Your task to perform on an android device: uninstall "Fetch Rewards" Image 0: 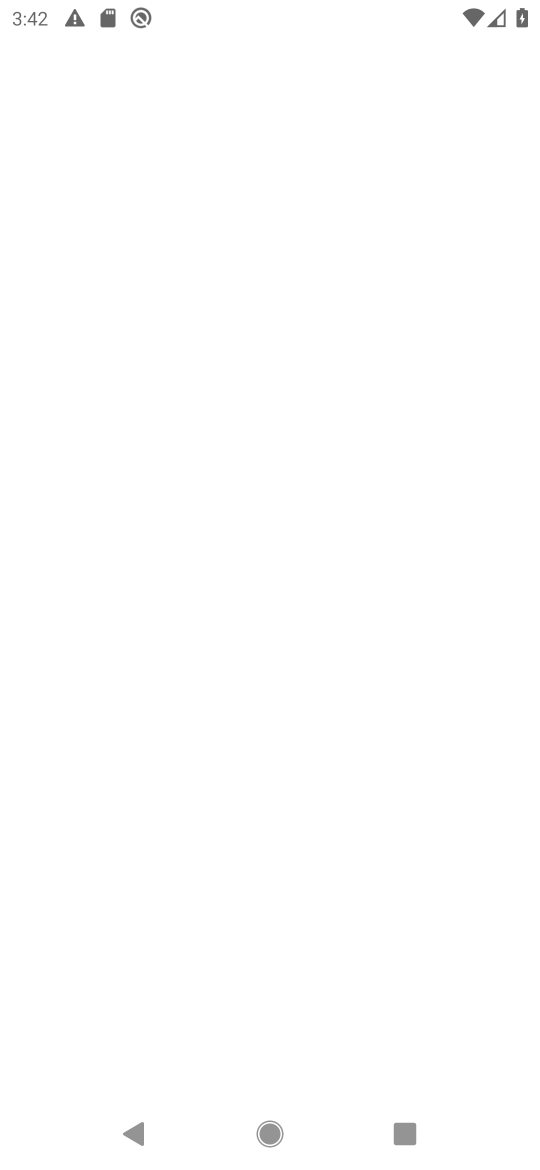
Step 0: drag from (275, 1032) to (222, 512)
Your task to perform on an android device: uninstall "Fetch Rewards" Image 1: 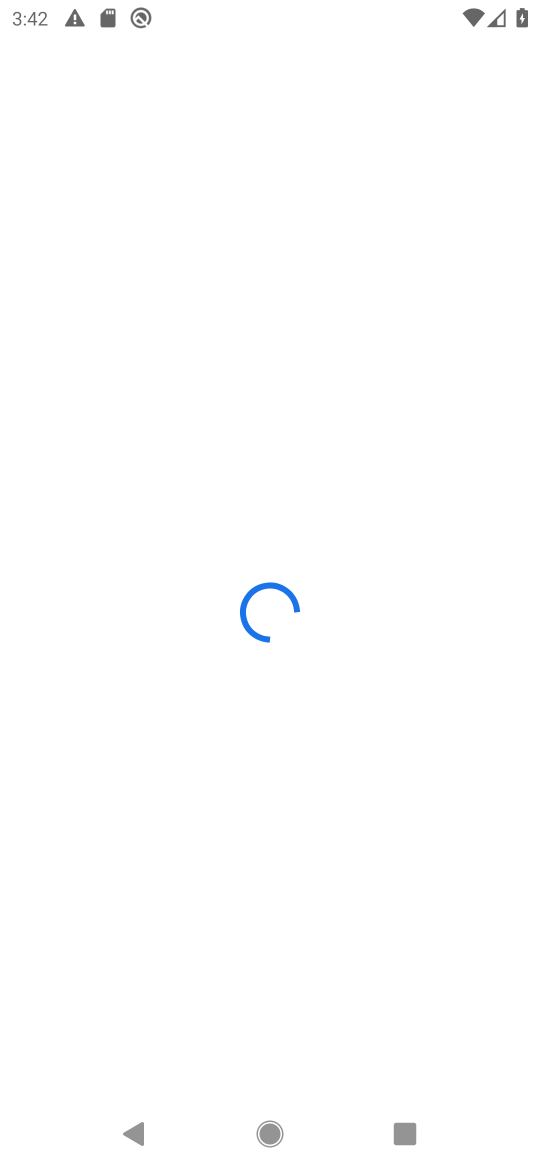
Step 1: press back button
Your task to perform on an android device: uninstall "Fetch Rewards" Image 2: 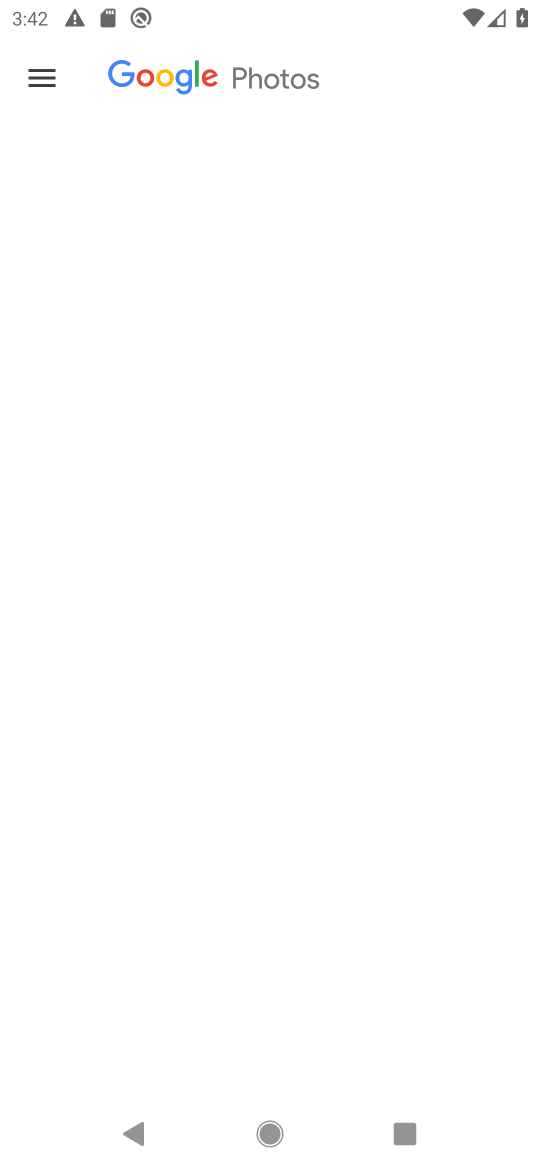
Step 2: press back button
Your task to perform on an android device: uninstall "Fetch Rewards" Image 3: 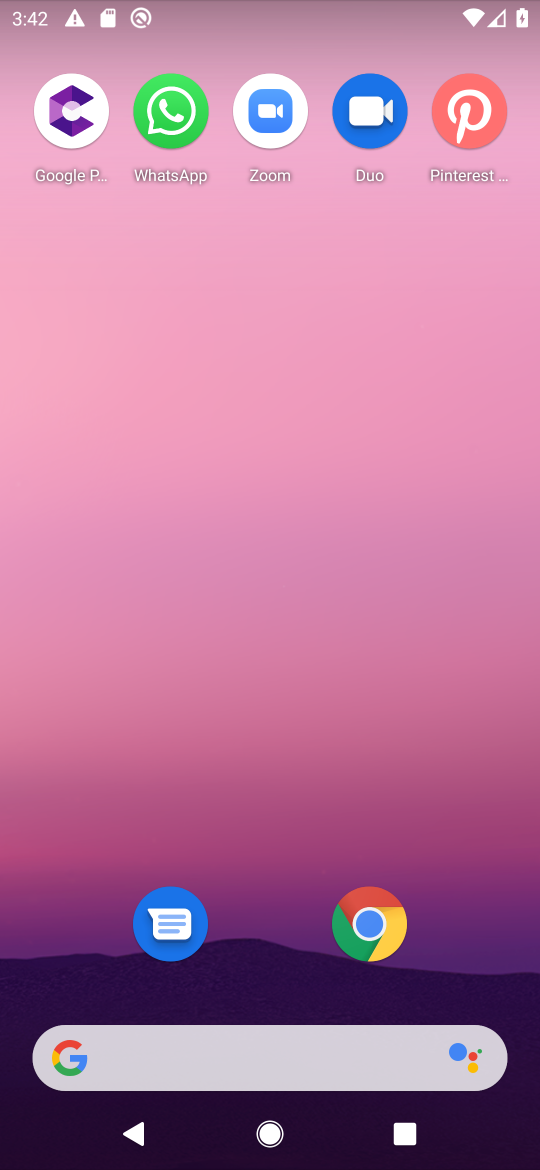
Step 3: press back button
Your task to perform on an android device: uninstall "Fetch Rewards" Image 4: 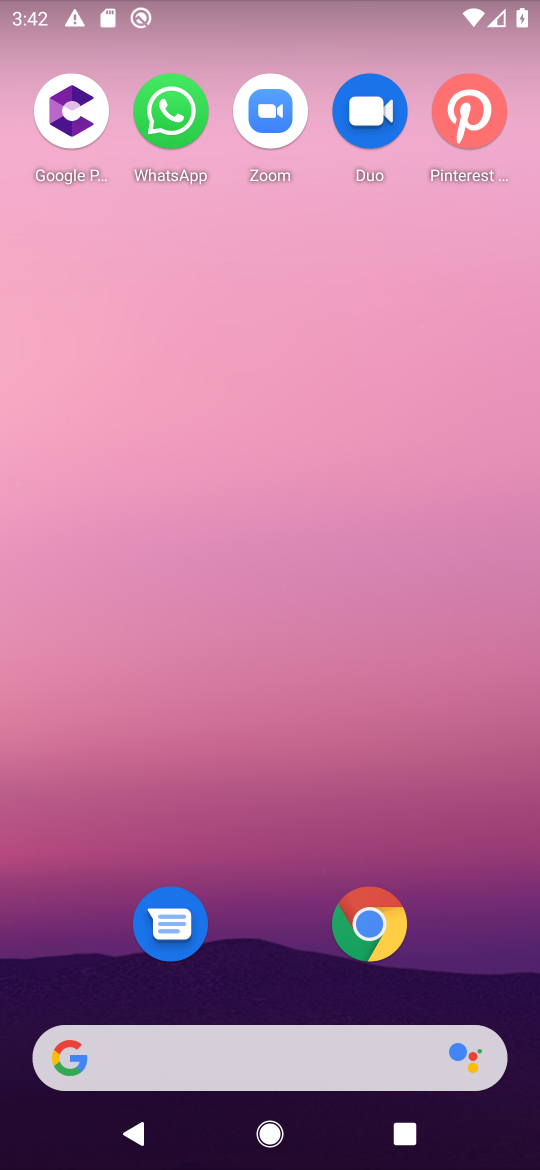
Step 4: press home button
Your task to perform on an android device: uninstall "Fetch Rewards" Image 5: 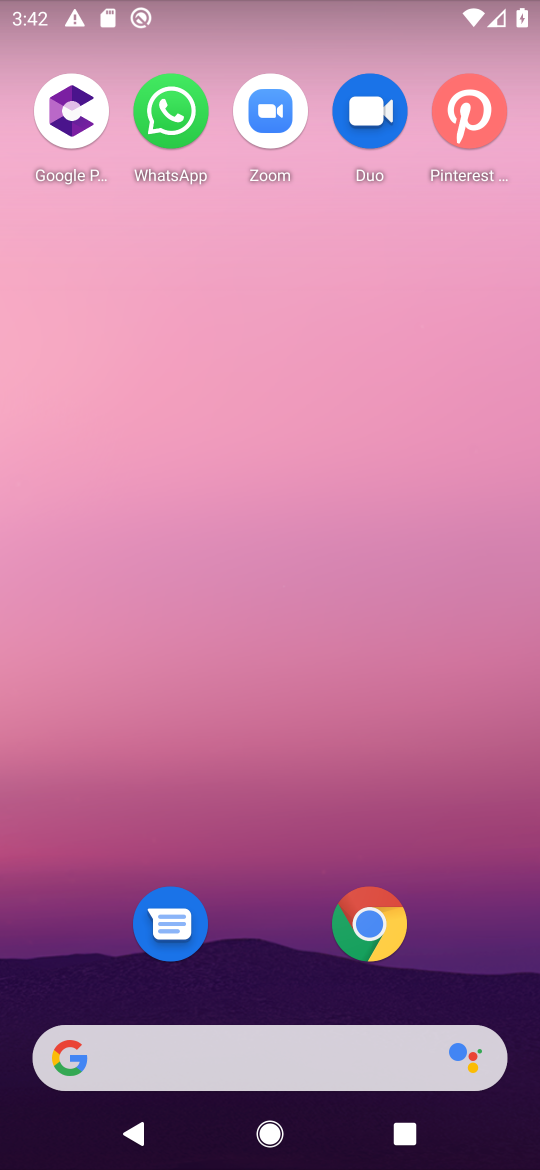
Step 5: click (230, 191)
Your task to perform on an android device: uninstall "Fetch Rewards" Image 6: 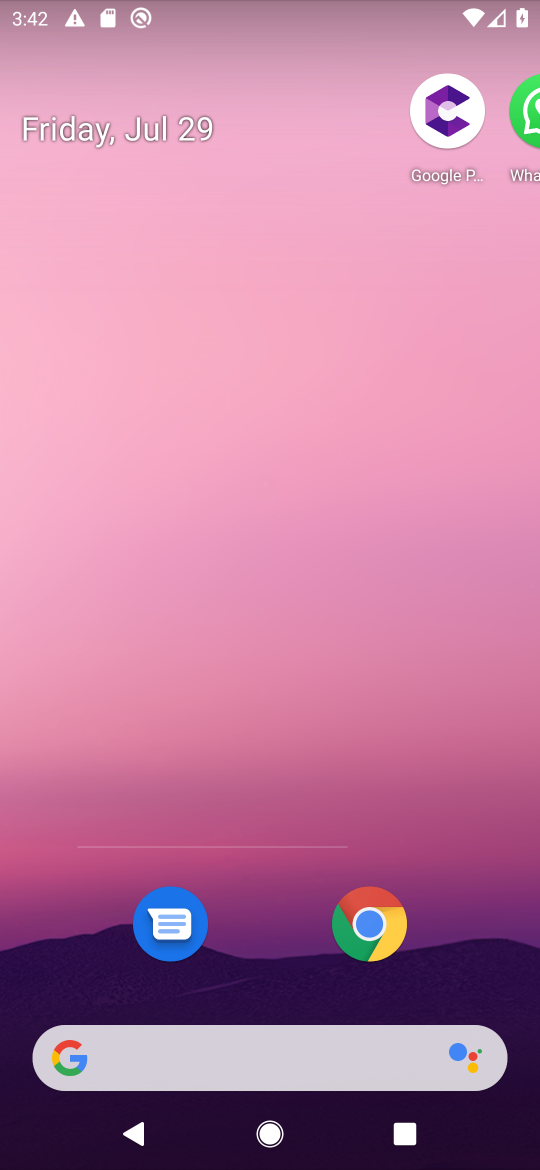
Step 6: press back button
Your task to perform on an android device: uninstall "Fetch Rewards" Image 7: 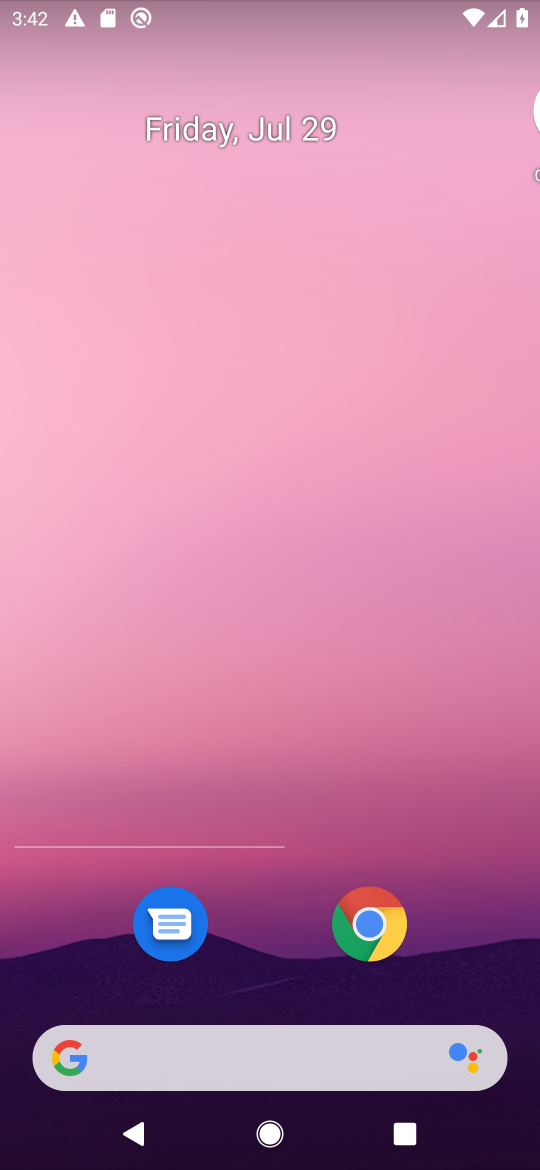
Step 7: click (286, 285)
Your task to perform on an android device: uninstall "Fetch Rewards" Image 8: 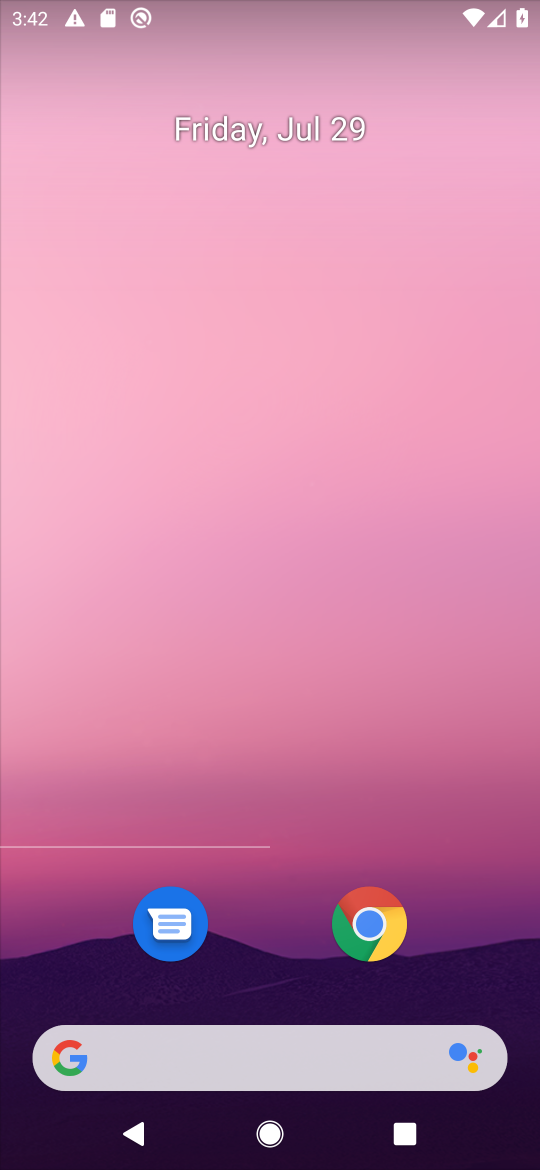
Step 8: drag from (435, 1019) to (225, 206)
Your task to perform on an android device: uninstall "Fetch Rewards" Image 9: 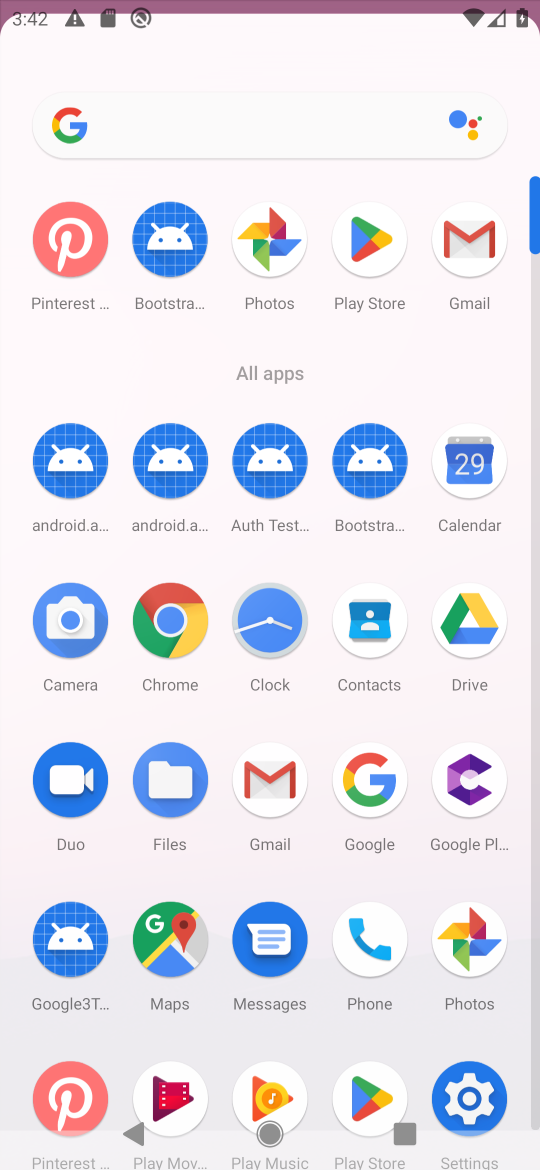
Step 9: drag from (334, 969) to (217, 268)
Your task to perform on an android device: uninstall "Fetch Rewards" Image 10: 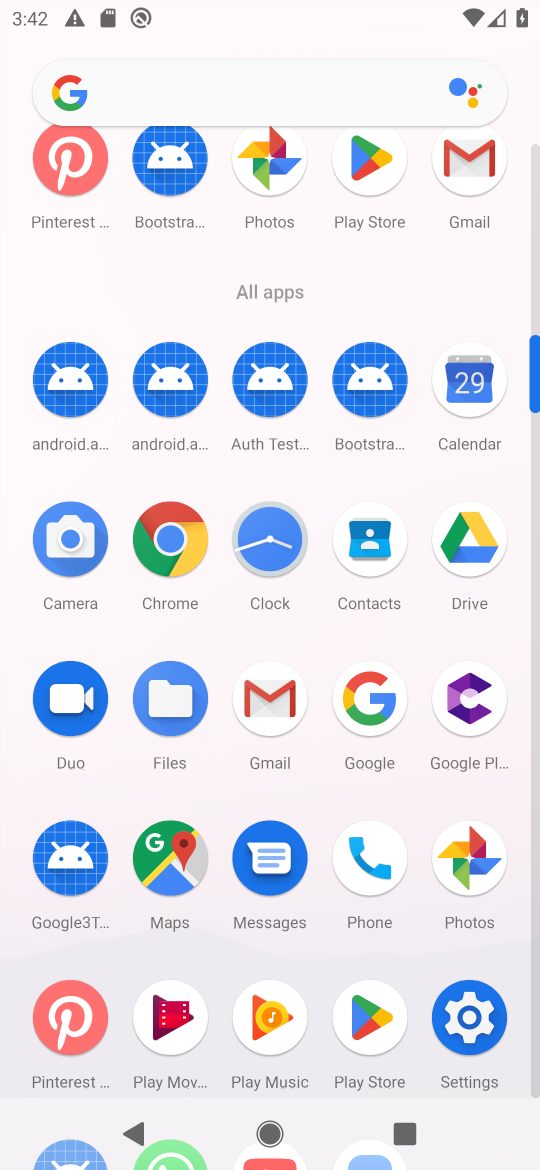
Step 10: click (363, 176)
Your task to perform on an android device: uninstall "Fetch Rewards" Image 11: 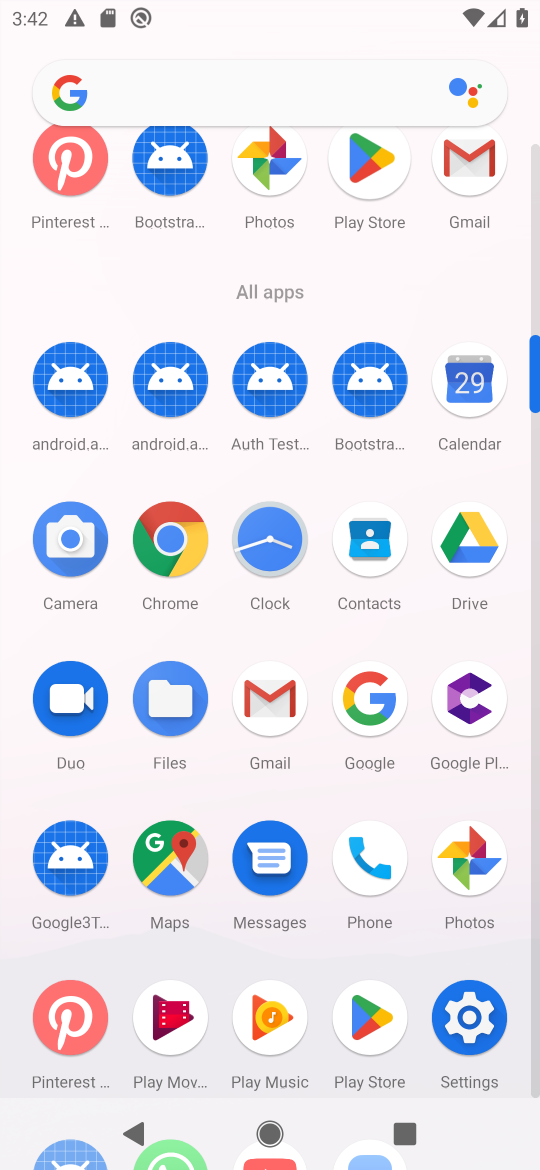
Step 11: click (363, 176)
Your task to perform on an android device: uninstall "Fetch Rewards" Image 12: 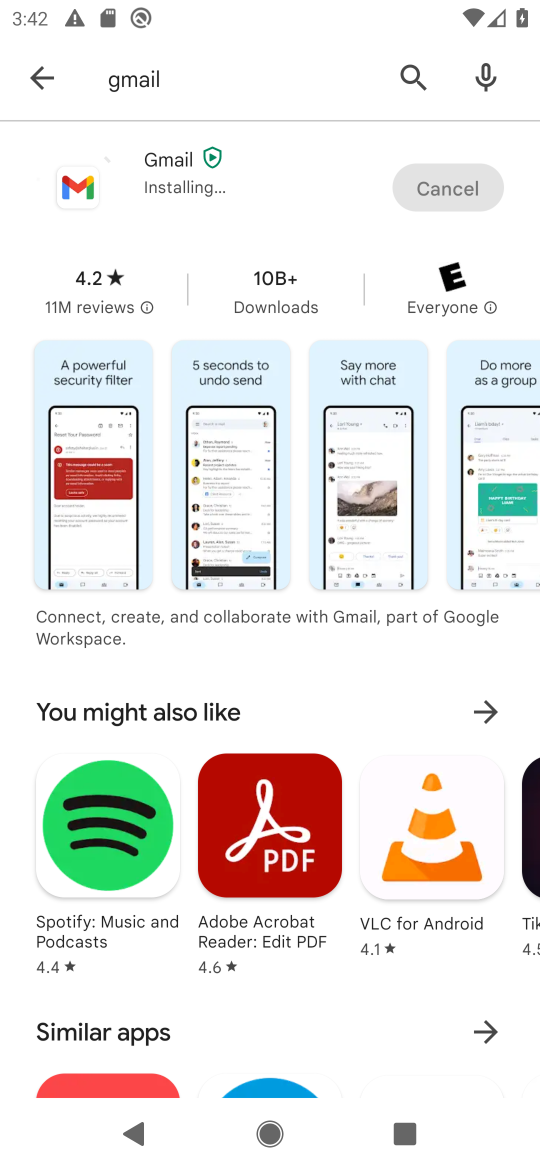
Step 12: click (365, 174)
Your task to perform on an android device: uninstall "Fetch Rewards" Image 13: 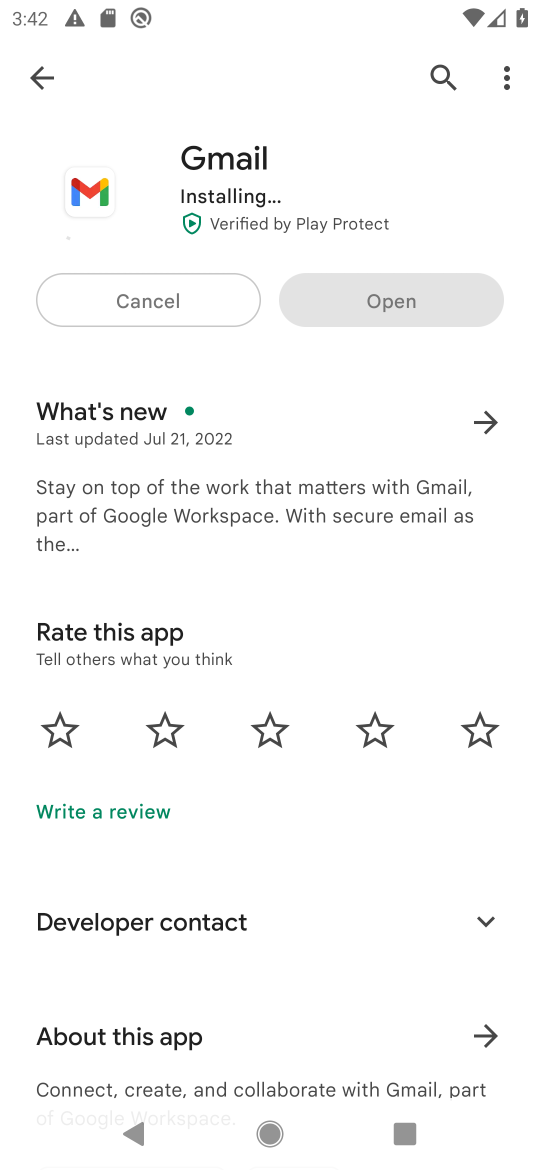
Step 13: click (47, 85)
Your task to perform on an android device: uninstall "Fetch Rewards" Image 14: 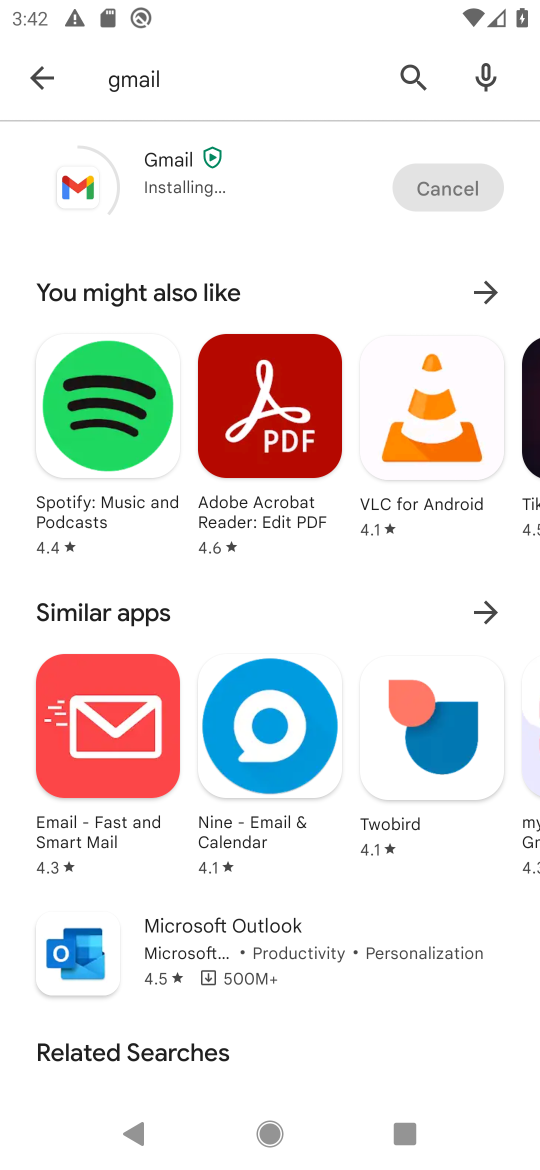
Step 14: click (171, 50)
Your task to perform on an android device: uninstall "Fetch Rewards" Image 15: 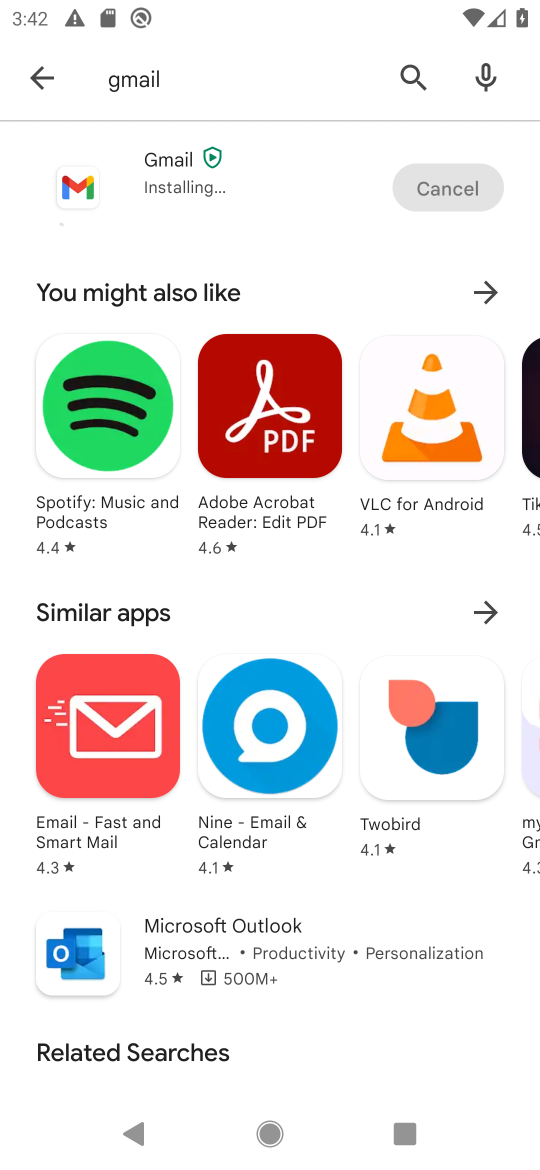
Step 15: click (162, 71)
Your task to perform on an android device: uninstall "Fetch Rewards" Image 16: 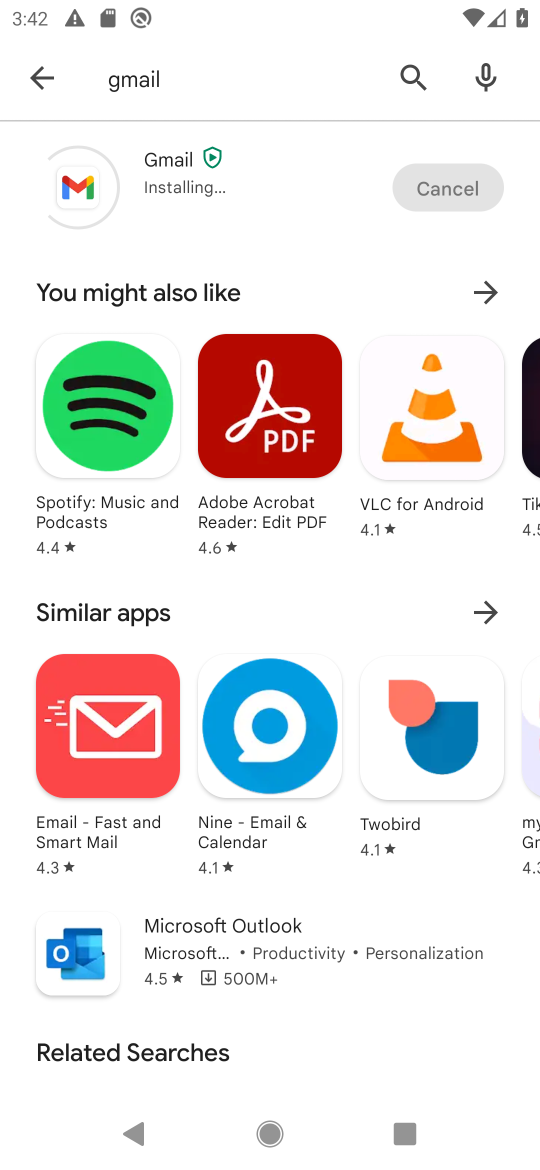
Step 16: click (170, 89)
Your task to perform on an android device: uninstall "Fetch Rewards" Image 17: 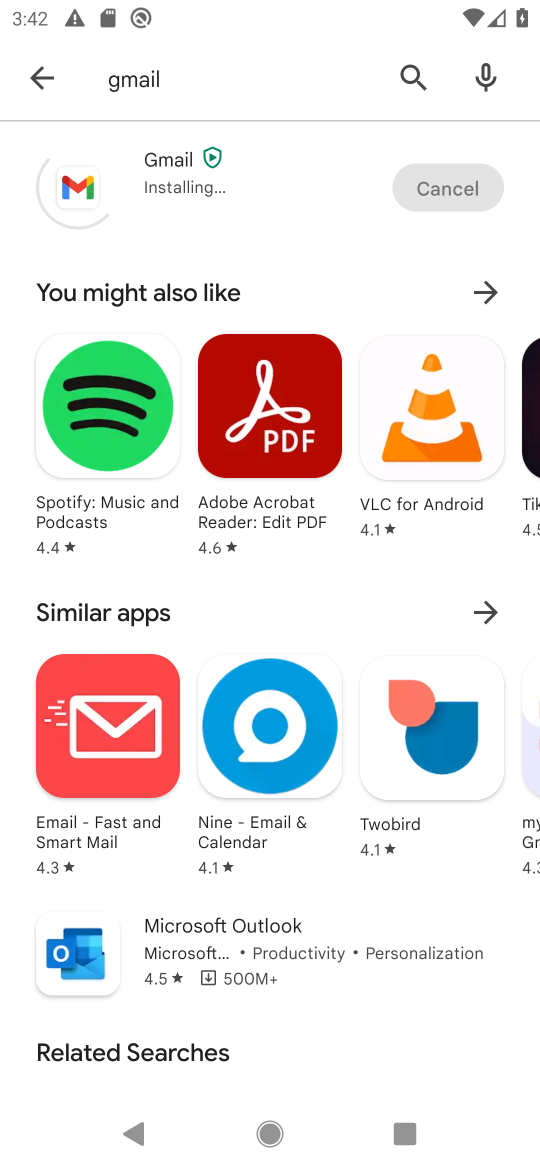
Step 17: drag from (155, 57) to (29, 56)
Your task to perform on an android device: uninstall "Fetch Rewards" Image 18: 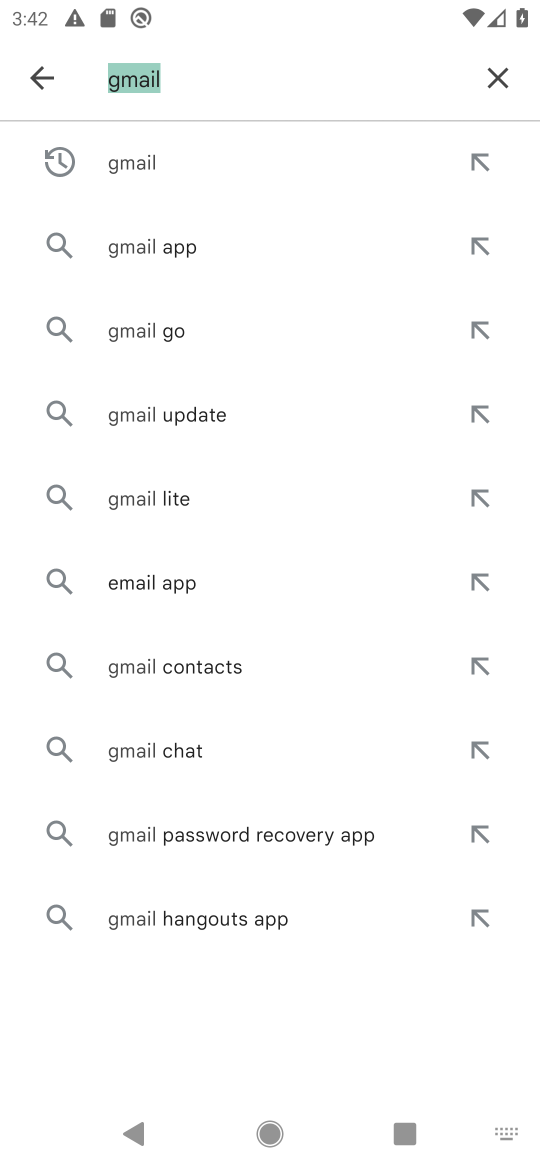
Step 18: click (469, 60)
Your task to perform on an android device: uninstall "Fetch Rewards" Image 19: 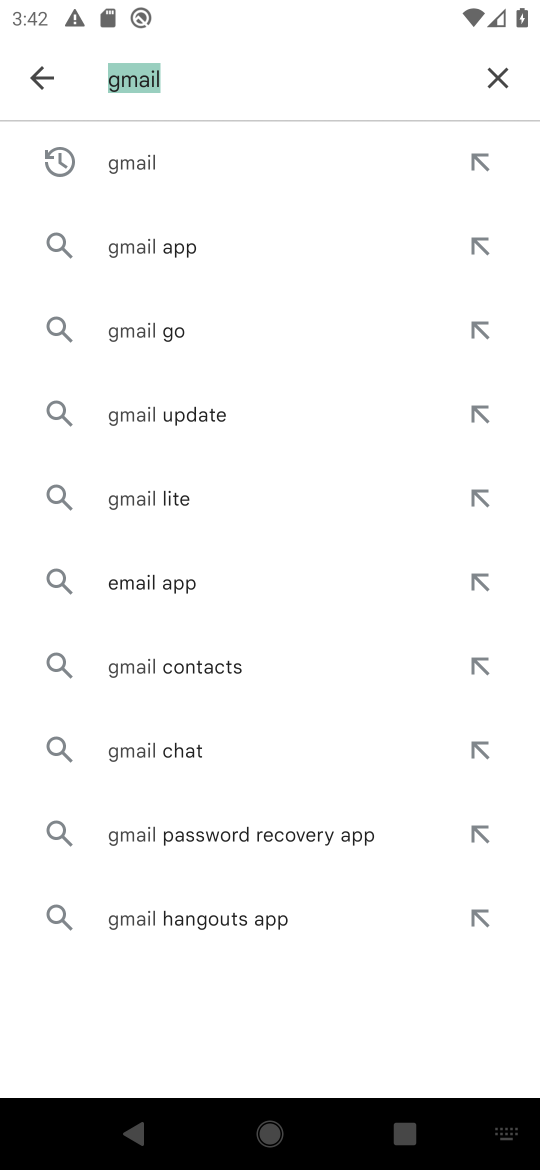
Step 19: click (476, 69)
Your task to perform on an android device: uninstall "Fetch Rewards" Image 20: 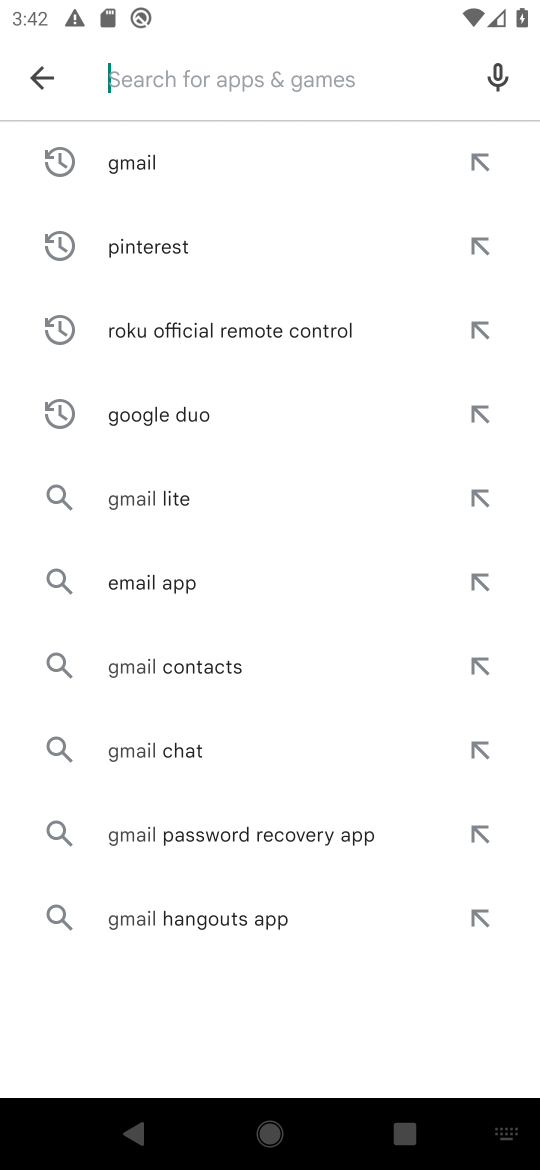
Step 20: click (492, 85)
Your task to perform on an android device: uninstall "Fetch Rewards" Image 21: 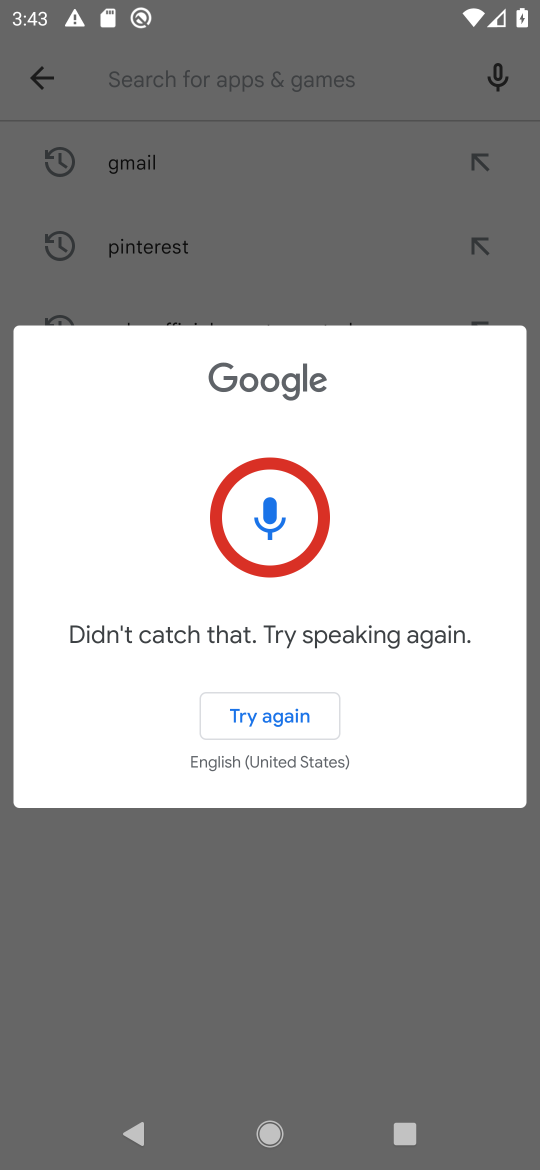
Step 21: type "Fetch Rewards"
Your task to perform on an android device: uninstall "Fetch Rewards" Image 22: 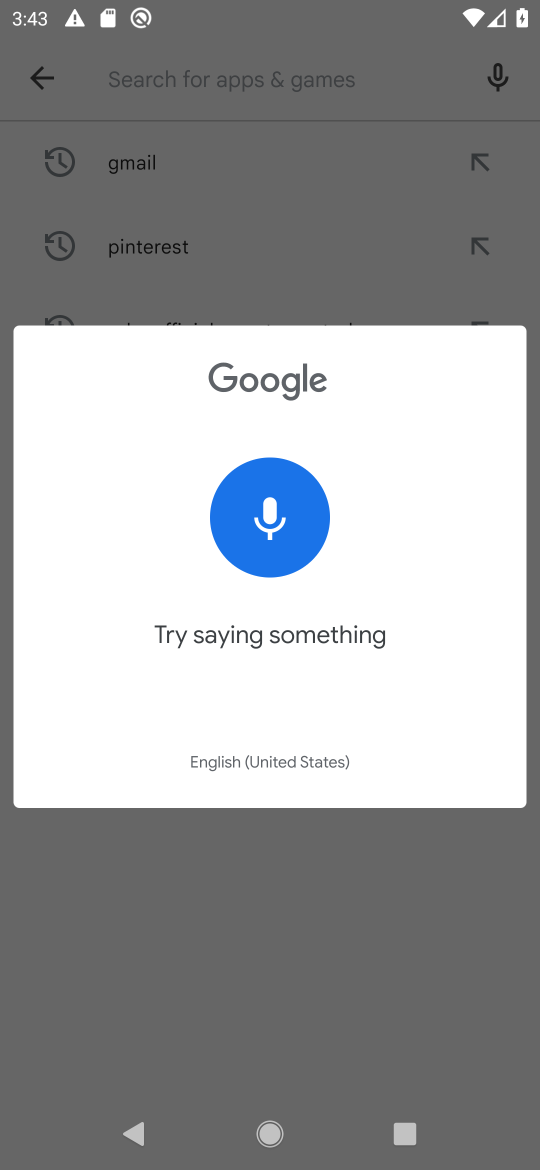
Step 22: click (275, 266)
Your task to perform on an android device: uninstall "Fetch Rewards" Image 23: 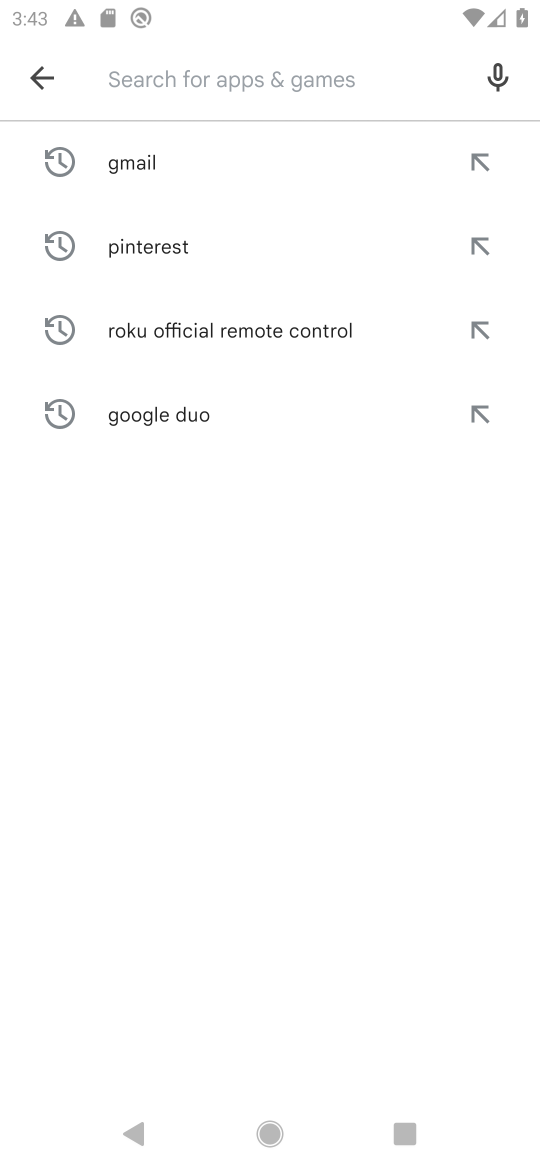
Step 23: click (275, 266)
Your task to perform on an android device: uninstall "Fetch Rewards" Image 24: 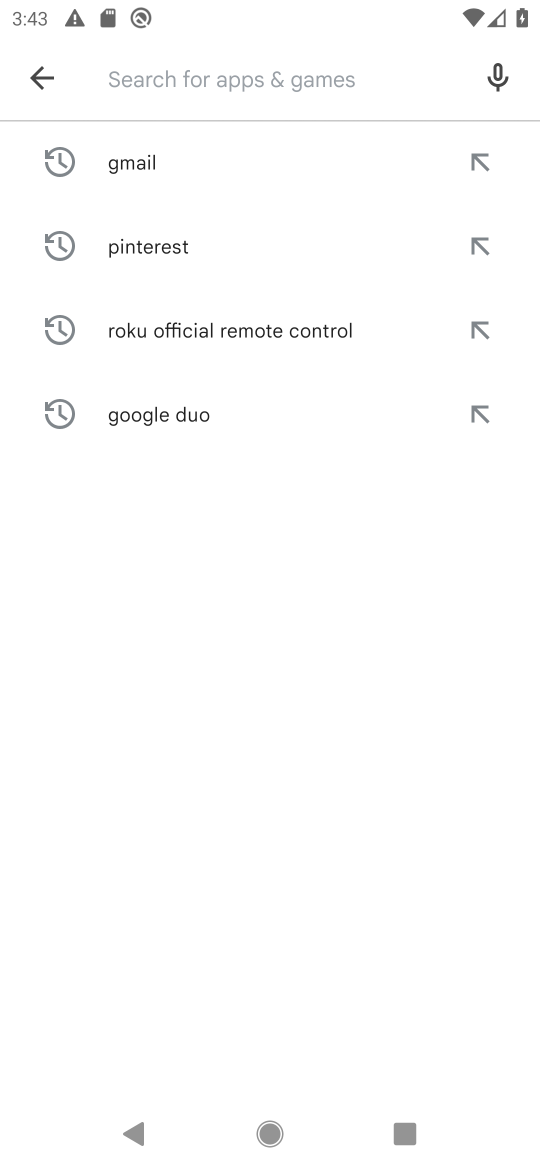
Step 24: click (275, 266)
Your task to perform on an android device: uninstall "Fetch Rewards" Image 25: 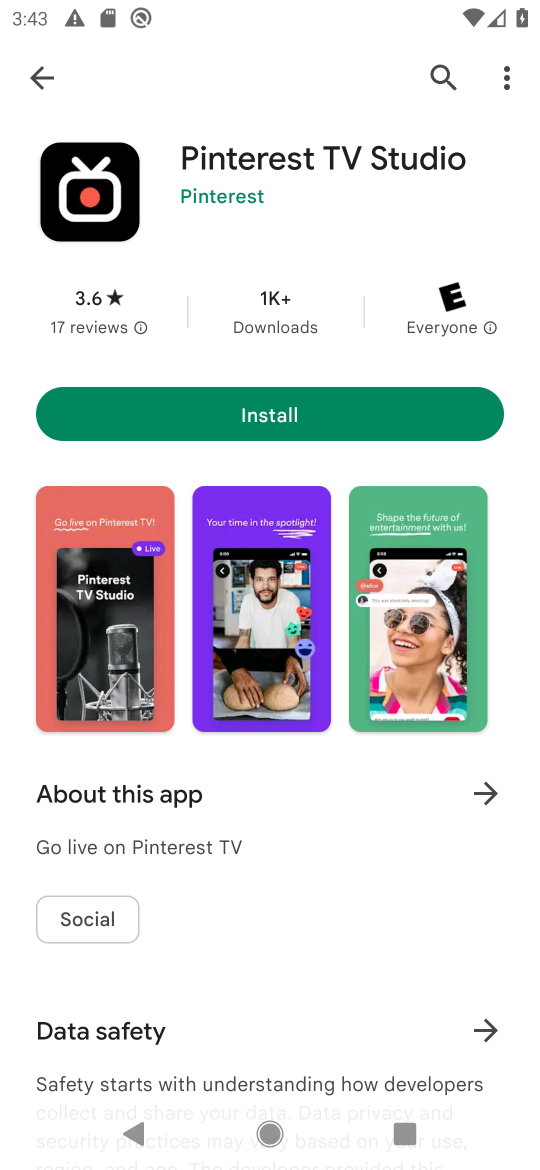
Step 25: click (48, 70)
Your task to perform on an android device: uninstall "Fetch Rewards" Image 26: 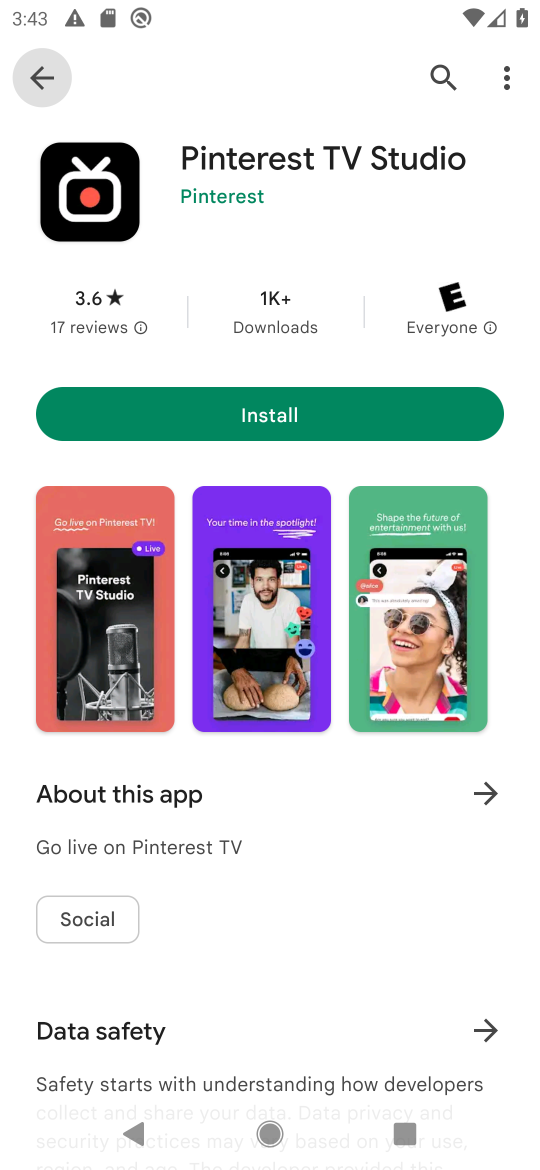
Step 26: click (48, 70)
Your task to perform on an android device: uninstall "Fetch Rewards" Image 27: 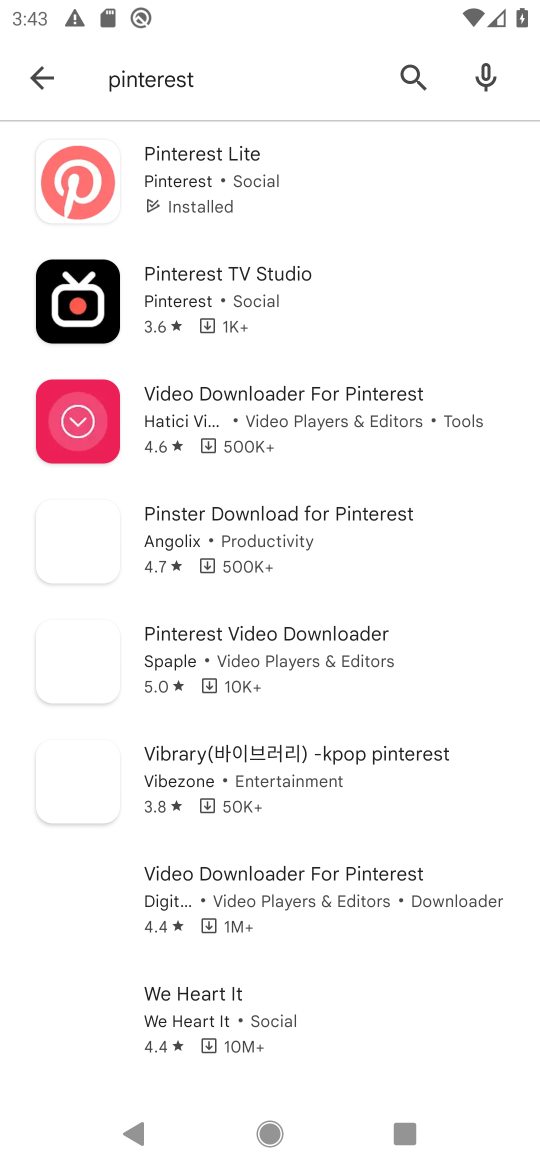
Step 27: click (48, 70)
Your task to perform on an android device: uninstall "Fetch Rewards" Image 28: 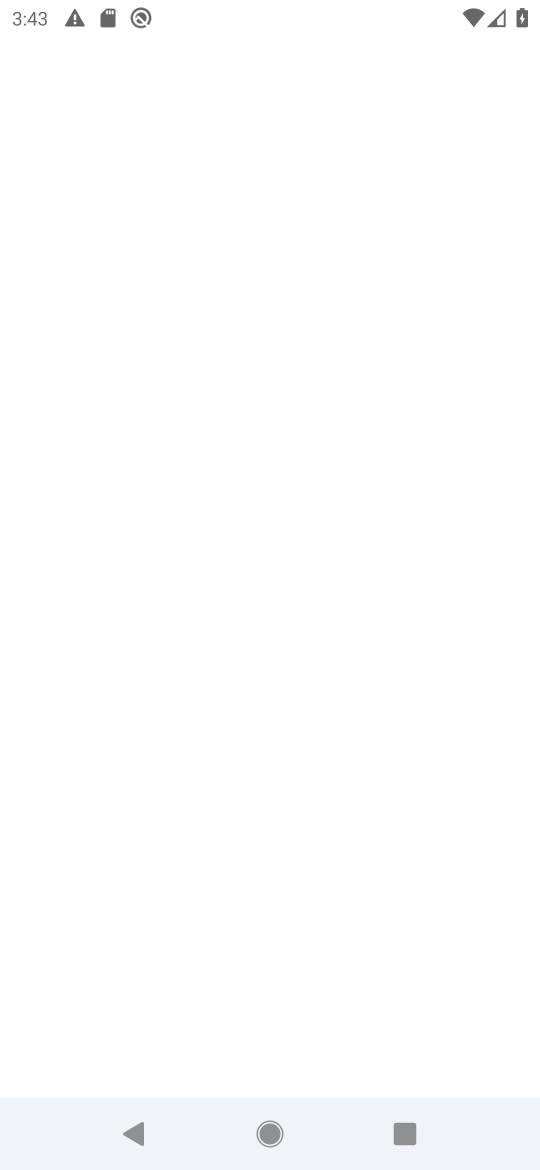
Step 28: click (48, 70)
Your task to perform on an android device: uninstall "Fetch Rewards" Image 29: 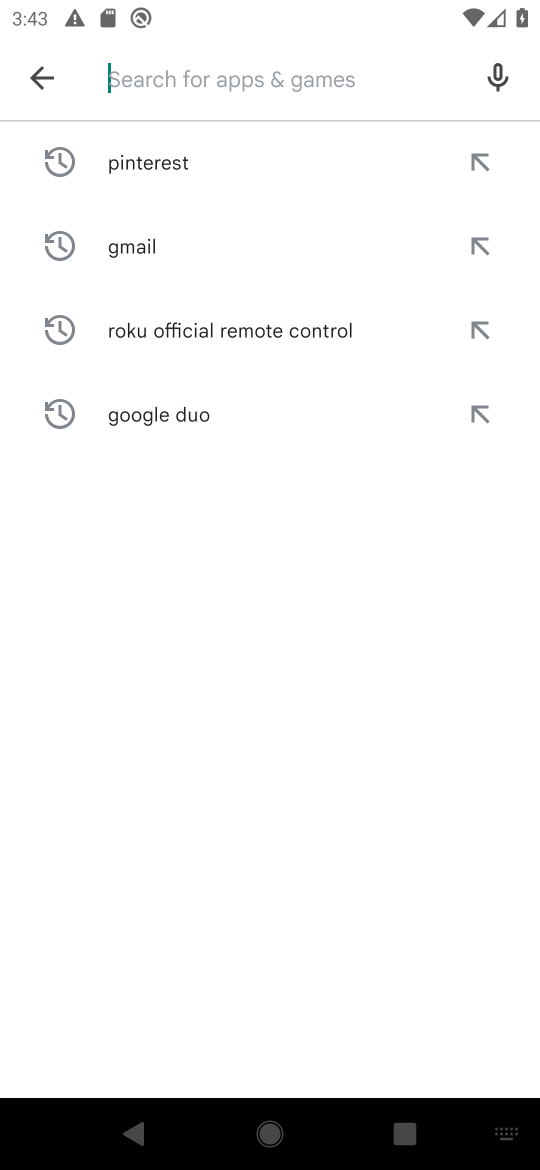
Step 29: type "Fetch Rewards"
Your task to perform on an android device: uninstall "Fetch Rewards" Image 30: 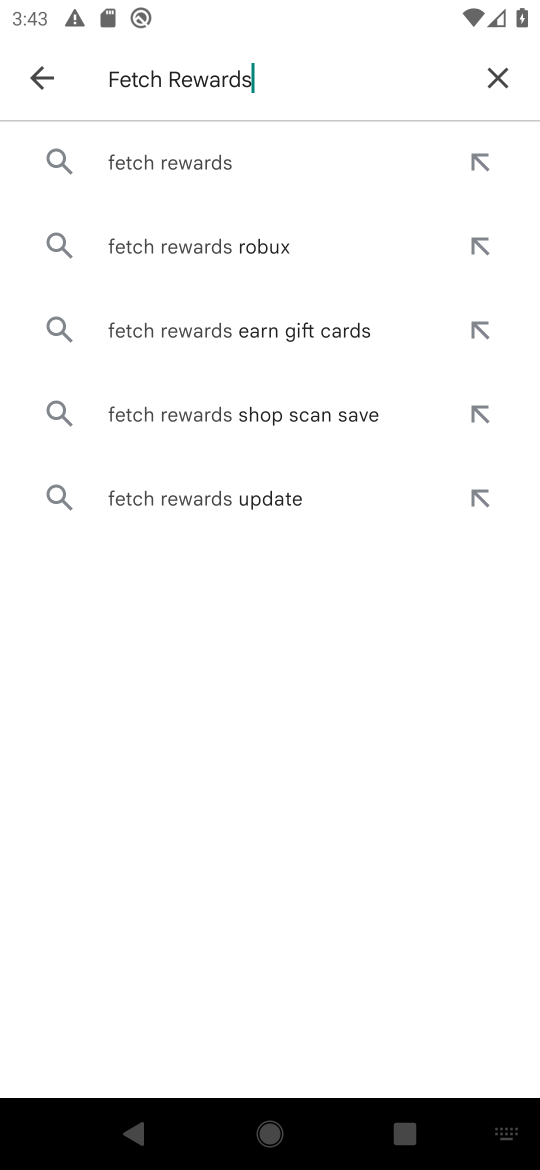
Step 30: click (179, 178)
Your task to perform on an android device: uninstall "Fetch Rewards" Image 31: 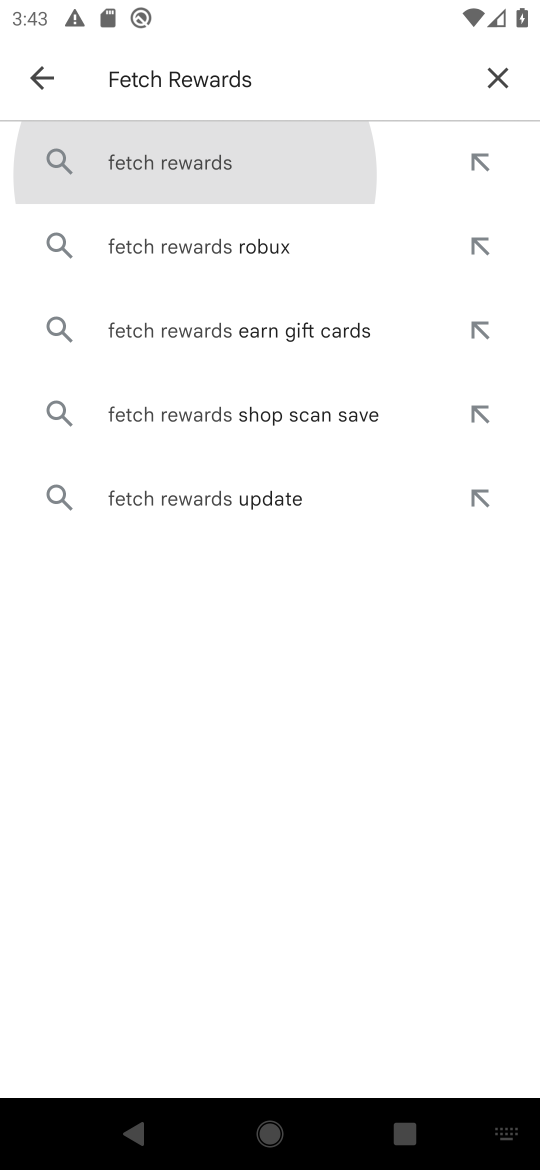
Step 31: click (190, 176)
Your task to perform on an android device: uninstall "Fetch Rewards" Image 32: 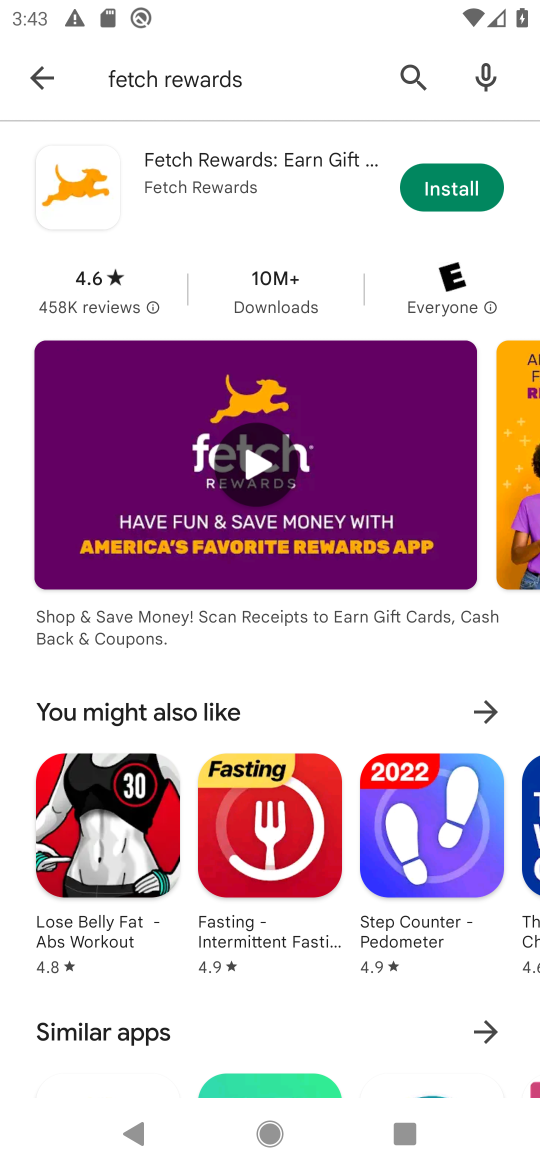
Step 32: task complete